Your task to perform on an android device: turn on data saver in the chrome app Image 0: 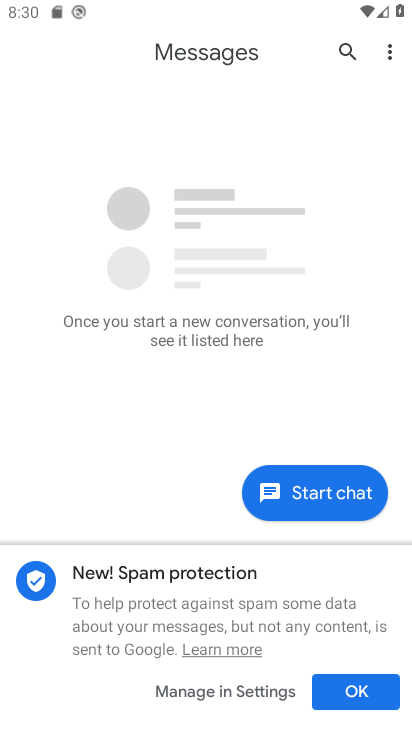
Step 0: press home button
Your task to perform on an android device: turn on data saver in the chrome app Image 1: 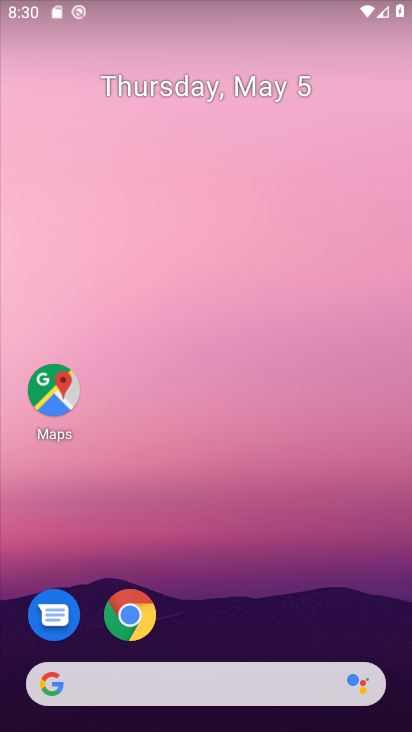
Step 1: click (130, 618)
Your task to perform on an android device: turn on data saver in the chrome app Image 2: 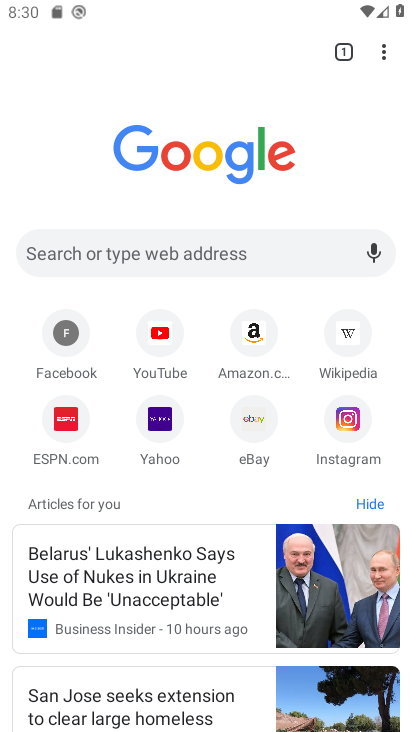
Step 2: click (384, 47)
Your task to perform on an android device: turn on data saver in the chrome app Image 3: 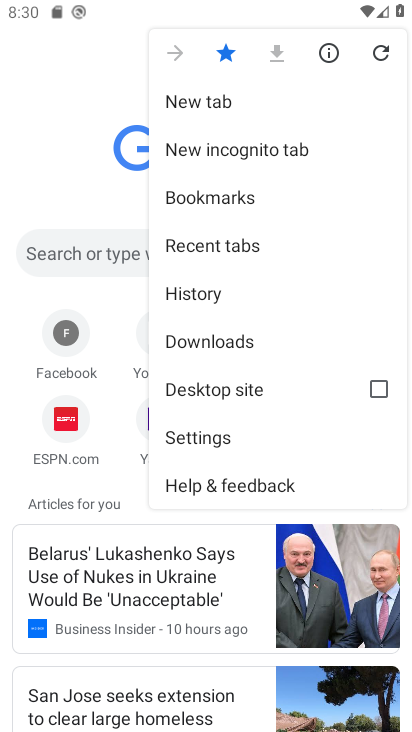
Step 3: click (175, 431)
Your task to perform on an android device: turn on data saver in the chrome app Image 4: 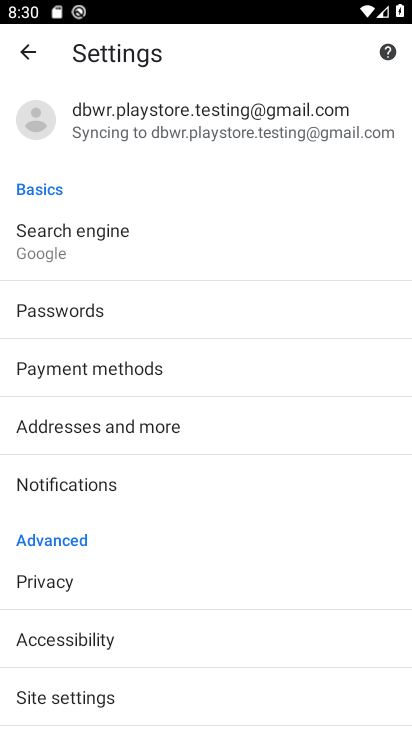
Step 4: drag from (136, 697) to (145, 381)
Your task to perform on an android device: turn on data saver in the chrome app Image 5: 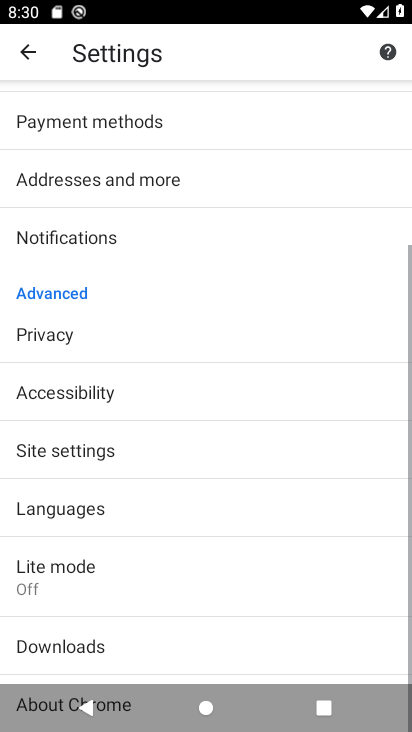
Step 5: click (73, 572)
Your task to perform on an android device: turn on data saver in the chrome app Image 6: 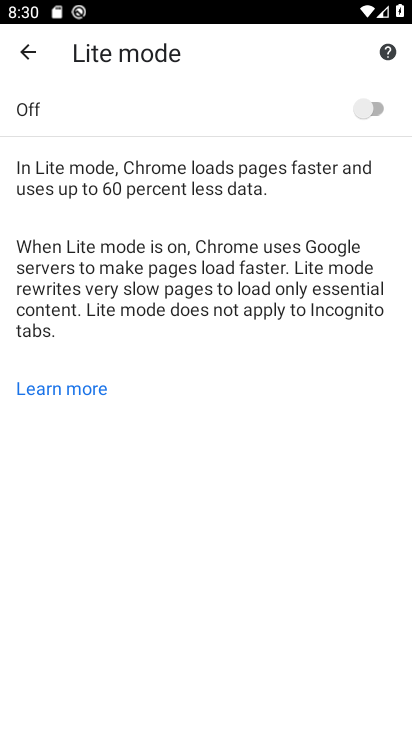
Step 6: click (372, 110)
Your task to perform on an android device: turn on data saver in the chrome app Image 7: 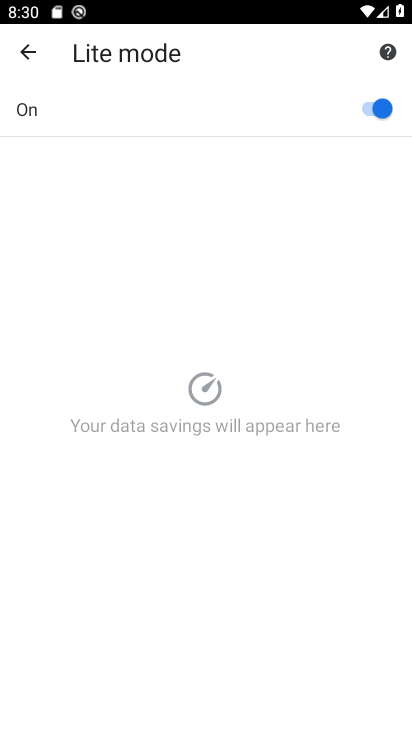
Step 7: task complete